Your task to perform on an android device: Open my contact list Image 0: 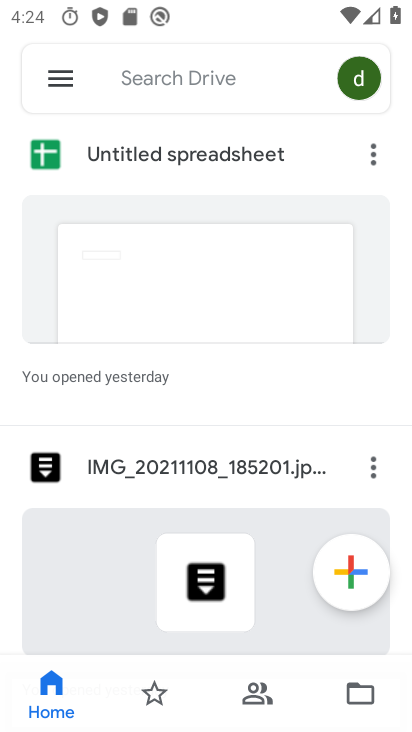
Step 0: press home button
Your task to perform on an android device: Open my contact list Image 1: 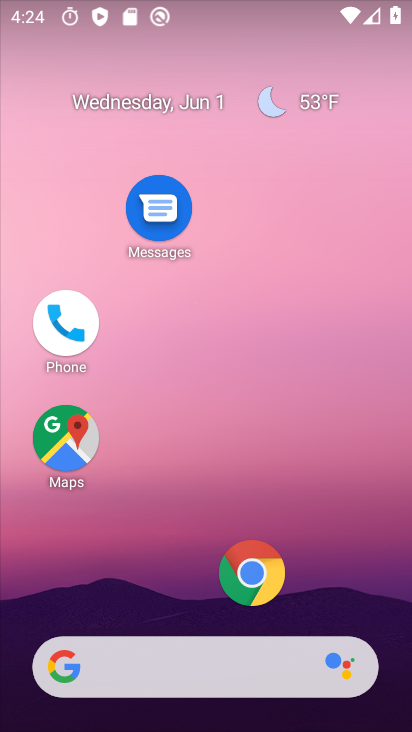
Step 1: drag from (154, 595) to (164, 106)
Your task to perform on an android device: Open my contact list Image 2: 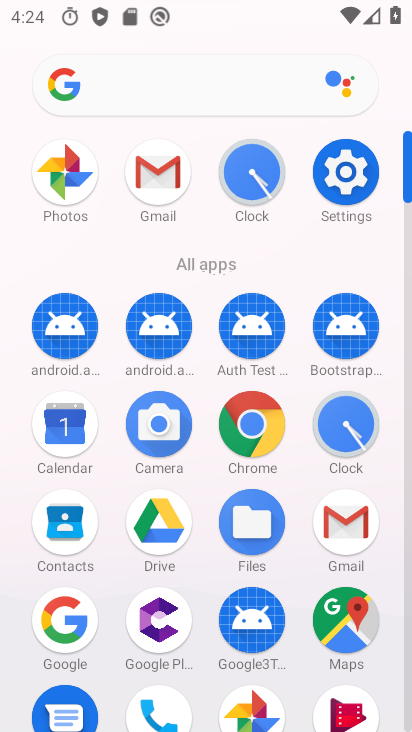
Step 2: click (149, 705)
Your task to perform on an android device: Open my contact list Image 3: 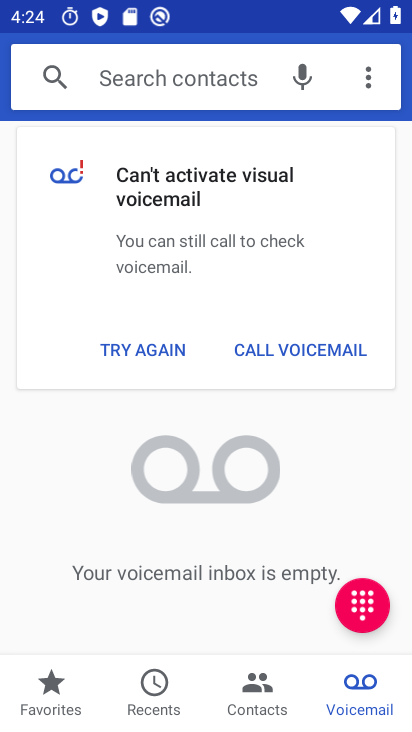
Step 3: click (246, 692)
Your task to perform on an android device: Open my contact list Image 4: 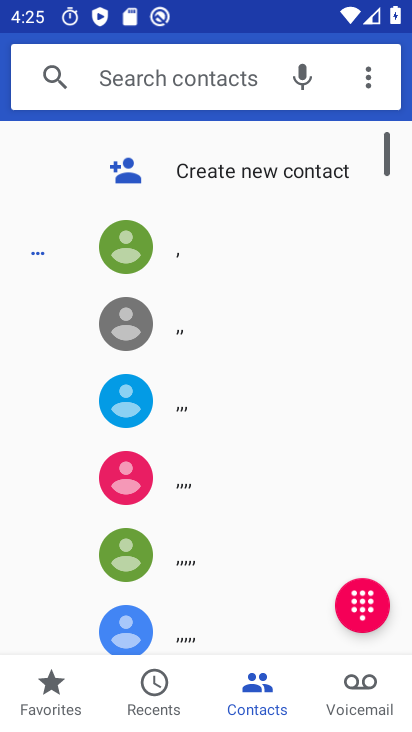
Step 4: task complete